Your task to perform on an android device: Open calendar and show me the third week of next month Image 0: 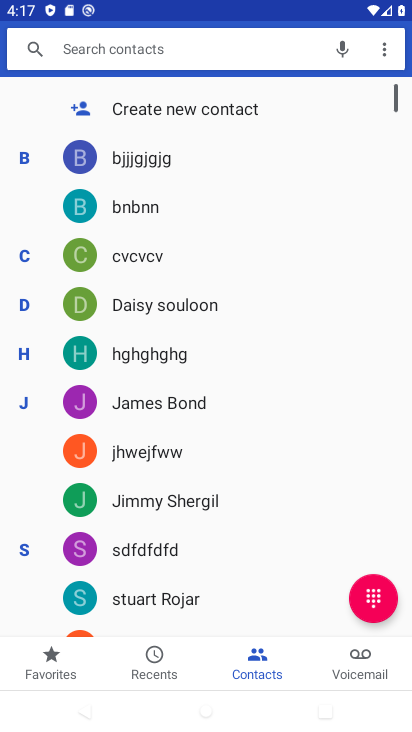
Step 0: press home button
Your task to perform on an android device: Open calendar and show me the third week of next month Image 1: 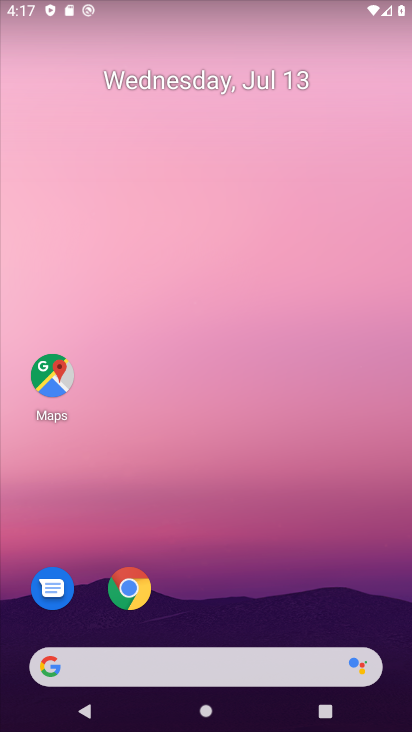
Step 1: drag from (15, 704) to (220, 38)
Your task to perform on an android device: Open calendar and show me the third week of next month Image 2: 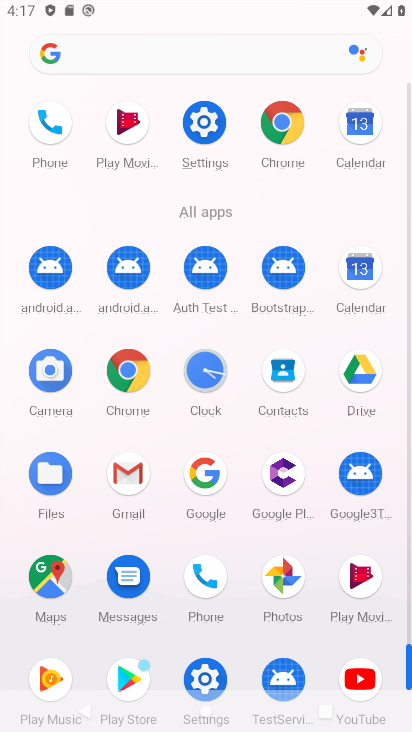
Step 2: click (345, 273)
Your task to perform on an android device: Open calendar and show me the third week of next month Image 3: 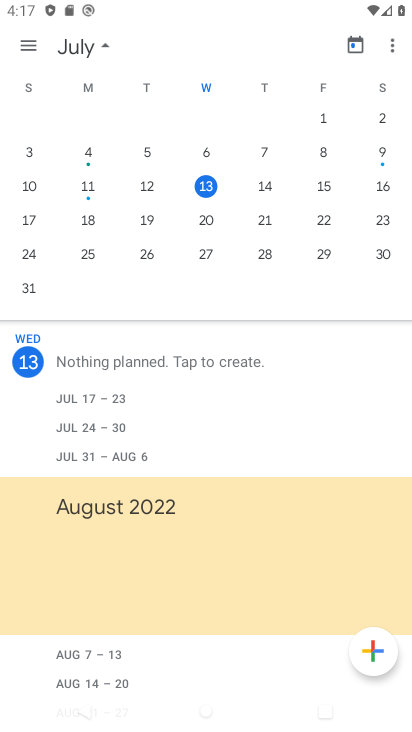
Step 3: drag from (395, 158) to (1, 279)
Your task to perform on an android device: Open calendar and show me the third week of next month Image 4: 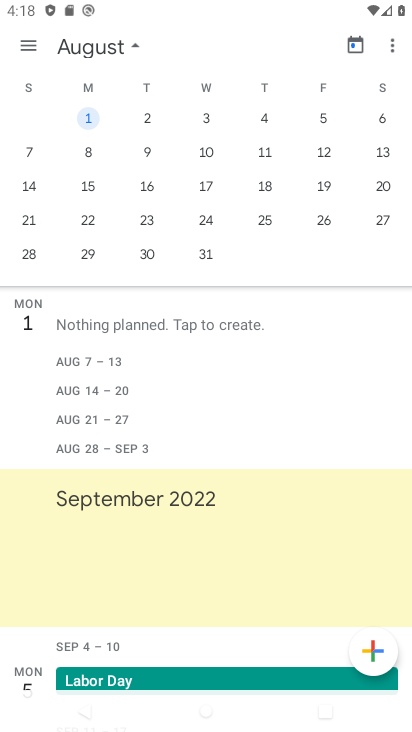
Step 4: click (87, 186)
Your task to perform on an android device: Open calendar and show me the third week of next month Image 5: 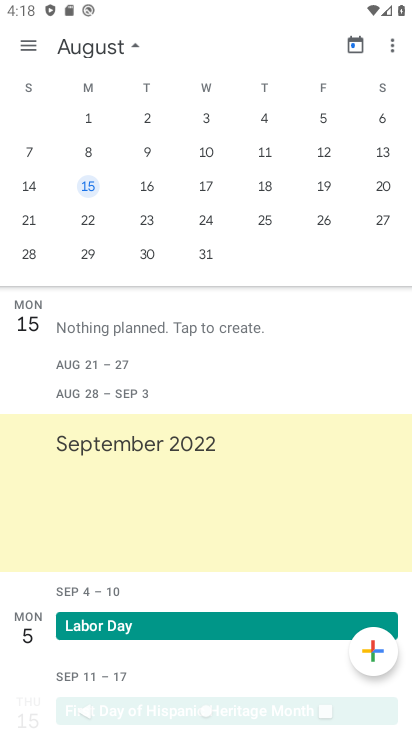
Step 5: task complete